Your task to perform on an android device: star an email in the gmail app Image 0: 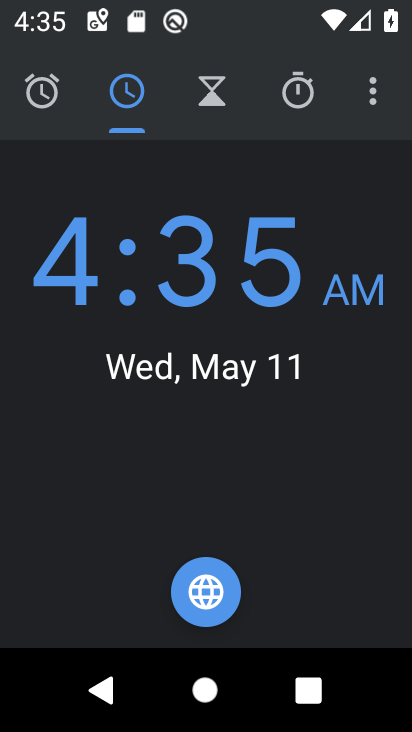
Step 0: press home button
Your task to perform on an android device: star an email in the gmail app Image 1: 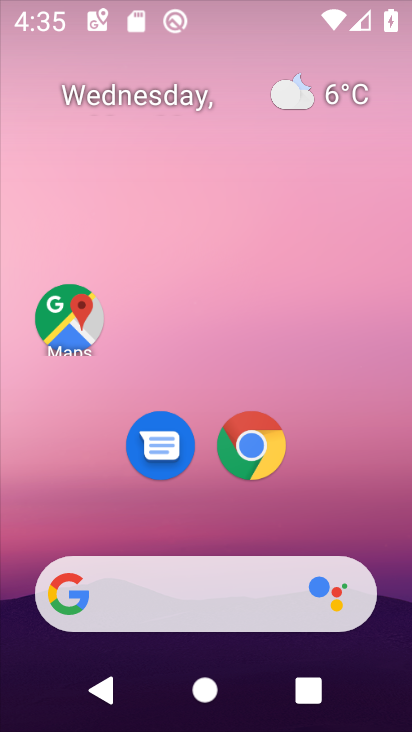
Step 1: drag from (176, 591) to (169, 9)
Your task to perform on an android device: star an email in the gmail app Image 2: 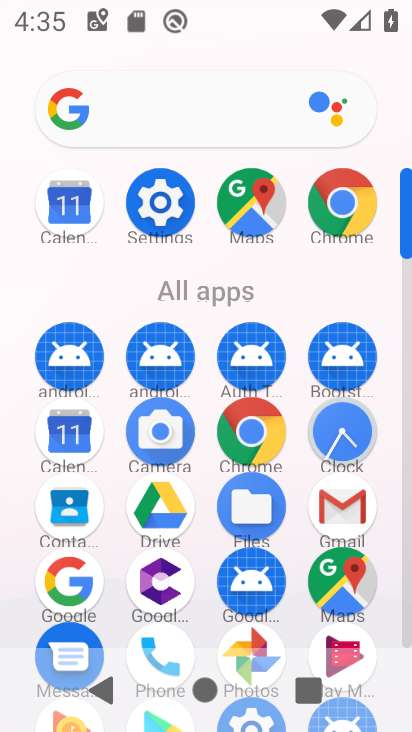
Step 2: click (353, 503)
Your task to perform on an android device: star an email in the gmail app Image 3: 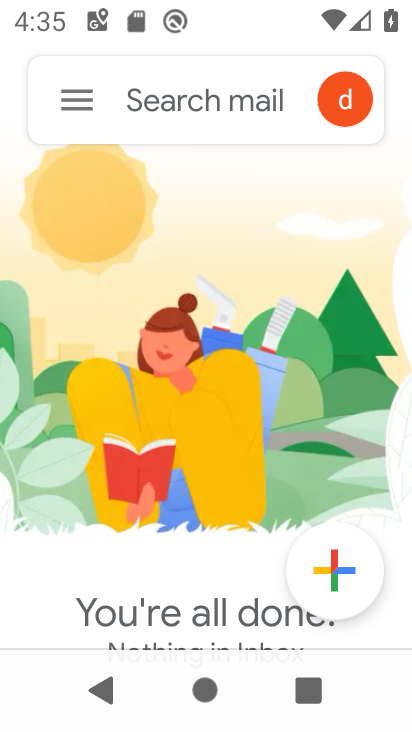
Step 3: click (90, 112)
Your task to perform on an android device: star an email in the gmail app Image 4: 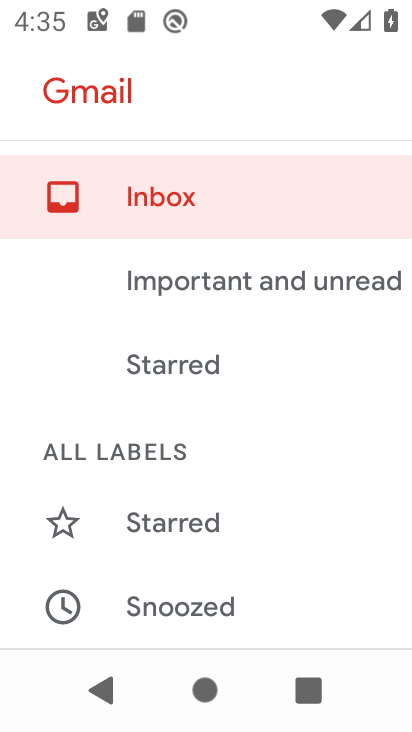
Step 4: drag from (190, 587) to (258, 38)
Your task to perform on an android device: star an email in the gmail app Image 5: 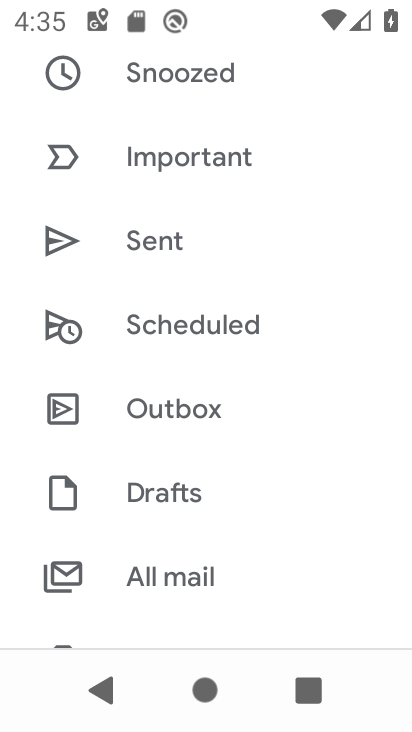
Step 5: click (170, 590)
Your task to perform on an android device: star an email in the gmail app Image 6: 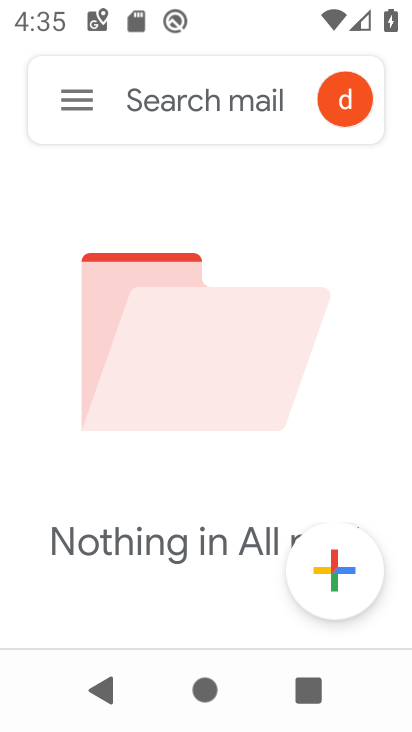
Step 6: task complete